Your task to perform on an android device: Open CNN.com Image 0: 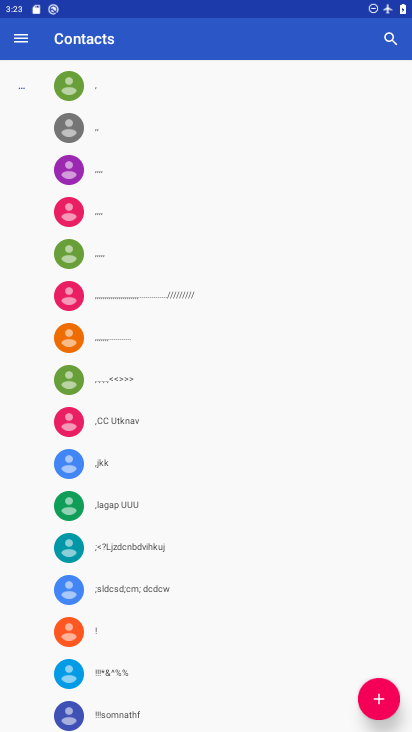
Step 0: press home button
Your task to perform on an android device: Open CNN.com Image 1: 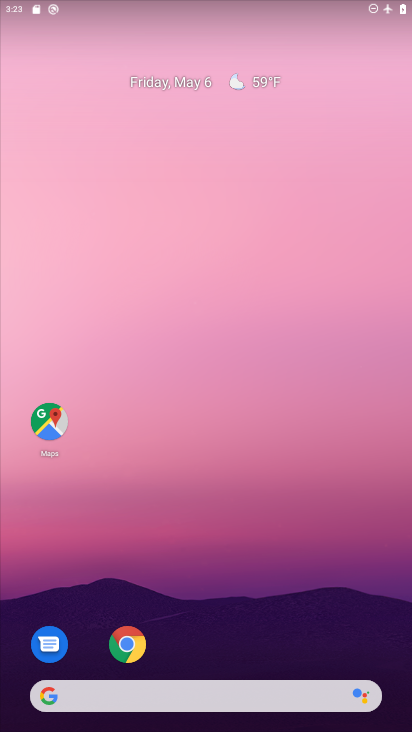
Step 1: click (126, 642)
Your task to perform on an android device: Open CNN.com Image 2: 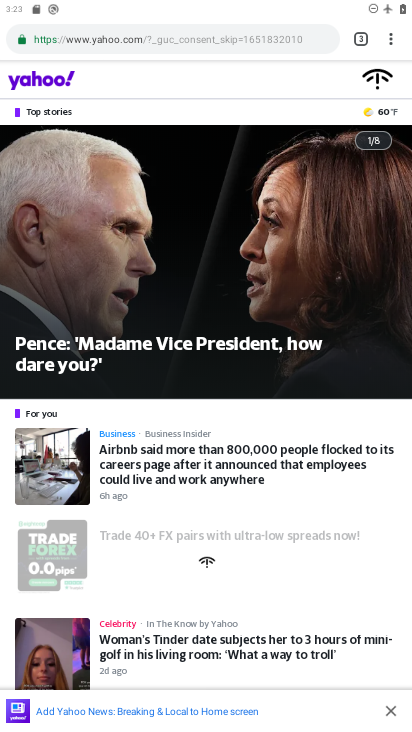
Step 2: drag from (393, 37) to (336, 67)
Your task to perform on an android device: Open CNN.com Image 3: 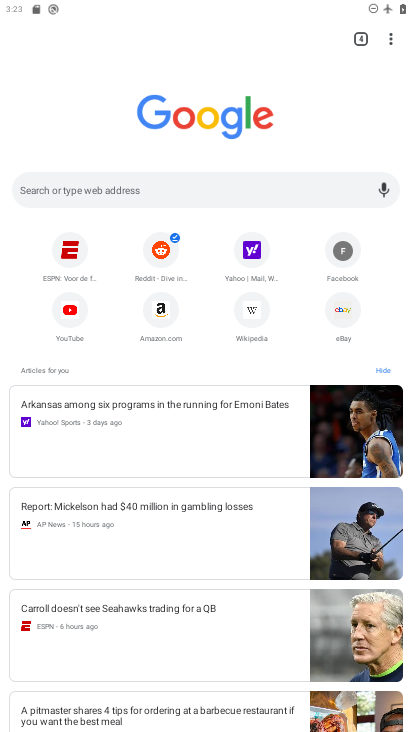
Step 3: click (143, 181)
Your task to perform on an android device: Open CNN.com Image 4: 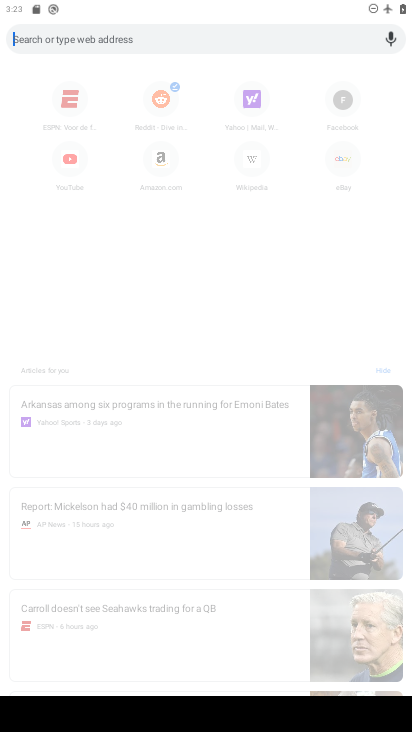
Step 4: type "CNN.com"
Your task to perform on an android device: Open CNN.com Image 5: 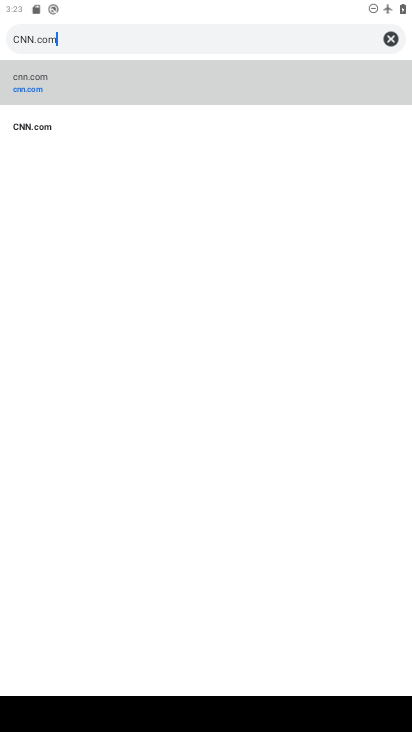
Step 5: type ""
Your task to perform on an android device: Open CNN.com Image 6: 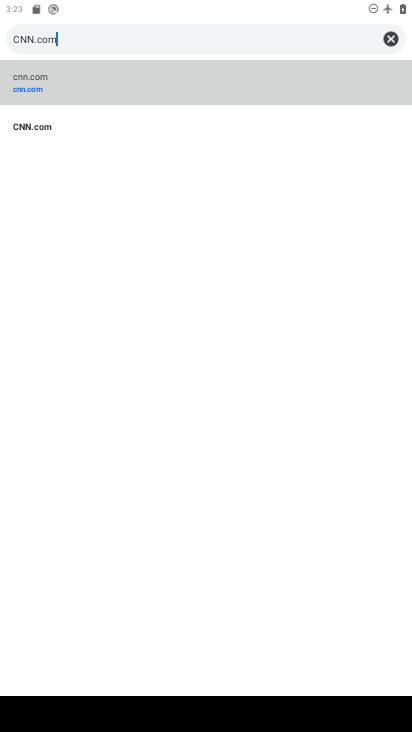
Step 6: click (52, 78)
Your task to perform on an android device: Open CNN.com Image 7: 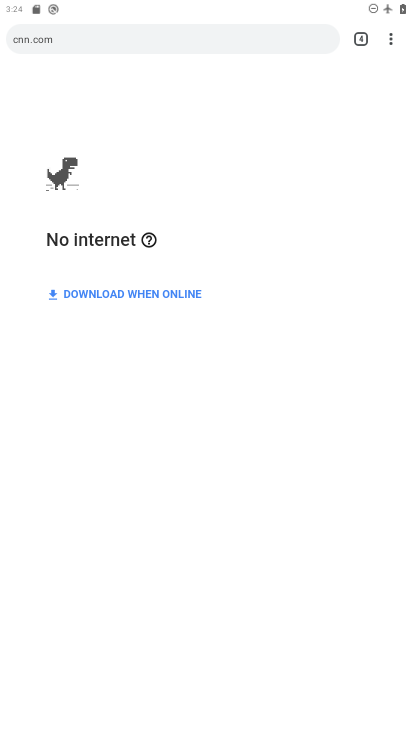
Step 7: task complete